Your task to perform on an android device: Open Google Image 0: 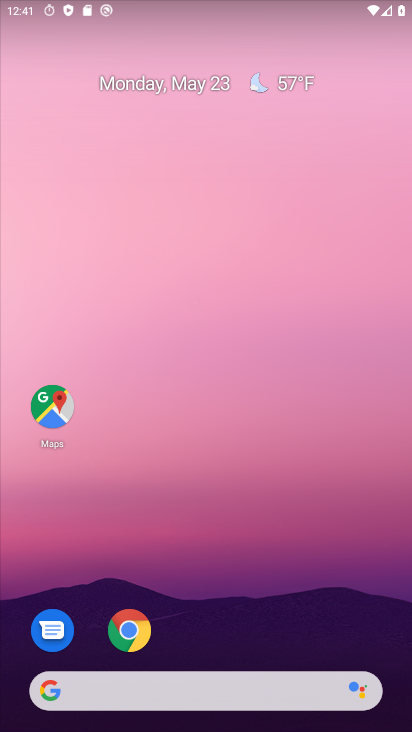
Step 0: drag from (251, 588) to (222, 25)
Your task to perform on an android device: Open Google Image 1: 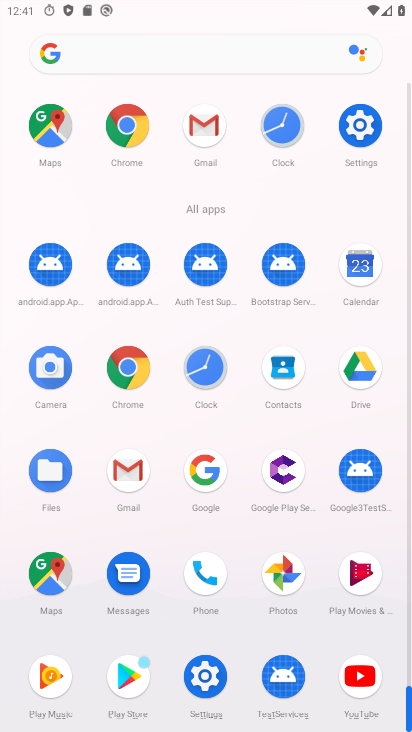
Step 1: drag from (11, 604) to (25, 270)
Your task to perform on an android device: Open Google Image 2: 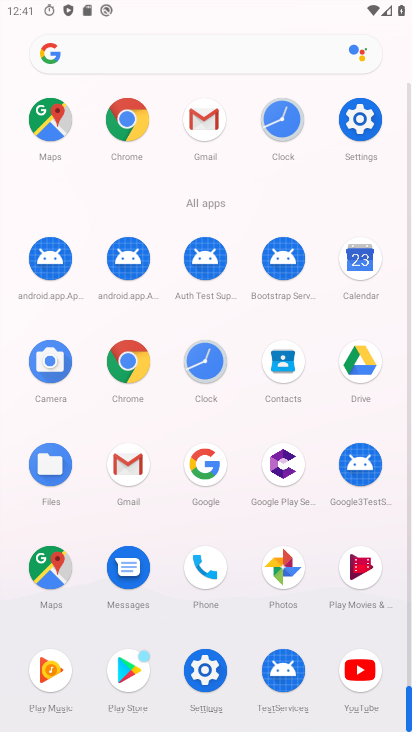
Step 2: click (127, 357)
Your task to perform on an android device: Open Google Image 3: 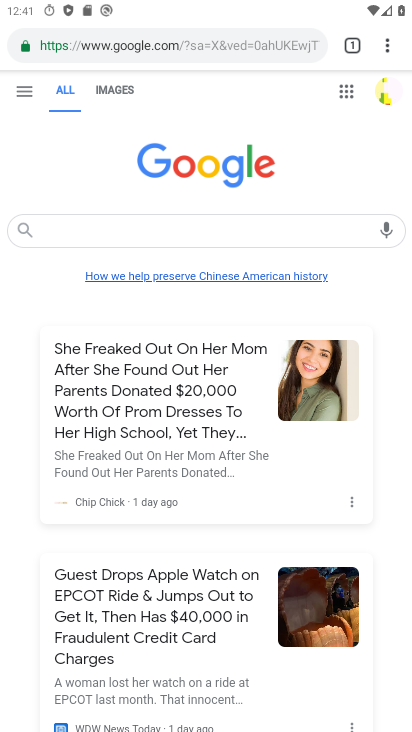
Step 3: click (178, 160)
Your task to perform on an android device: Open Google Image 4: 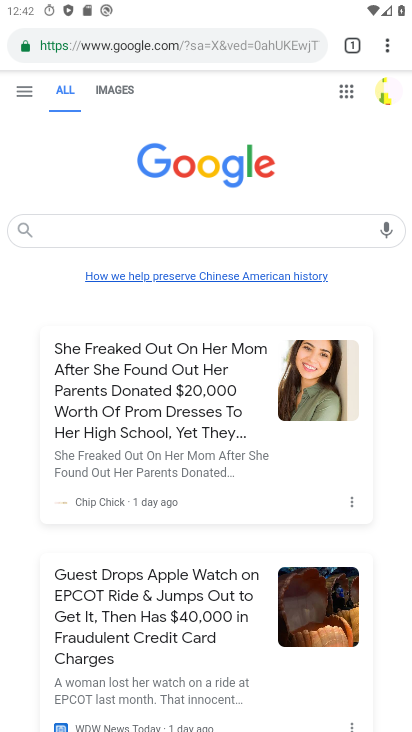
Step 4: click (203, 161)
Your task to perform on an android device: Open Google Image 5: 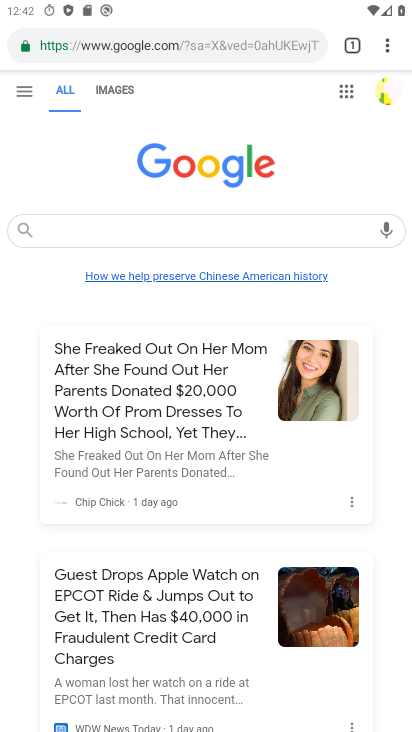
Step 5: click (204, 161)
Your task to perform on an android device: Open Google Image 6: 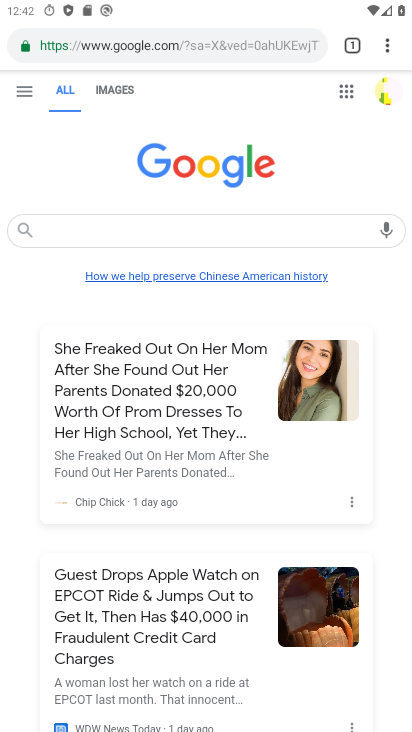
Step 6: click (228, 39)
Your task to perform on an android device: Open Google Image 7: 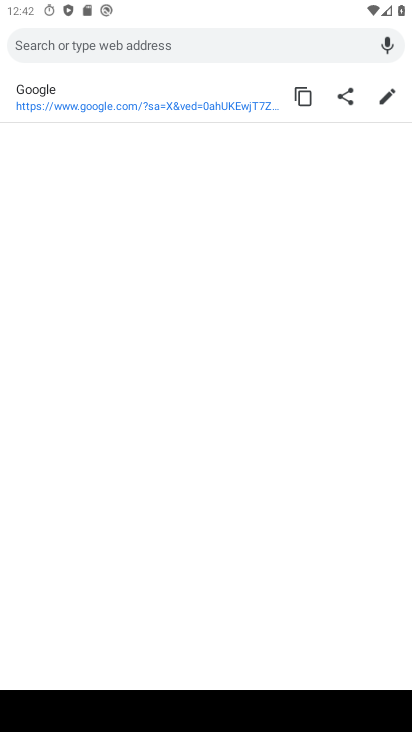
Step 7: type "Google"
Your task to perform on an android device: Open Google Image 8: 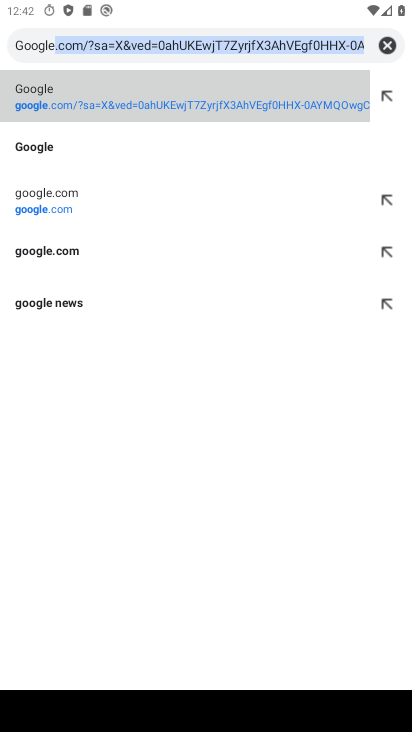
Step 8: click (54, 189)
Your task to perform on an android device: Open Google Image 9: 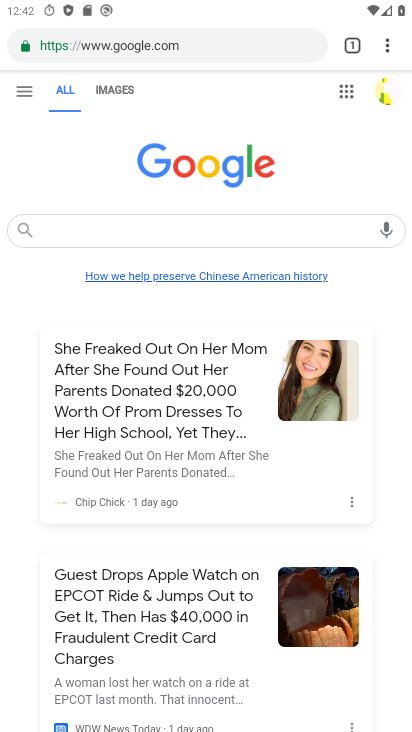
Step 9: task complete